Your task to perform on an android device: toggle notifications settings in the gmail app Image 0: 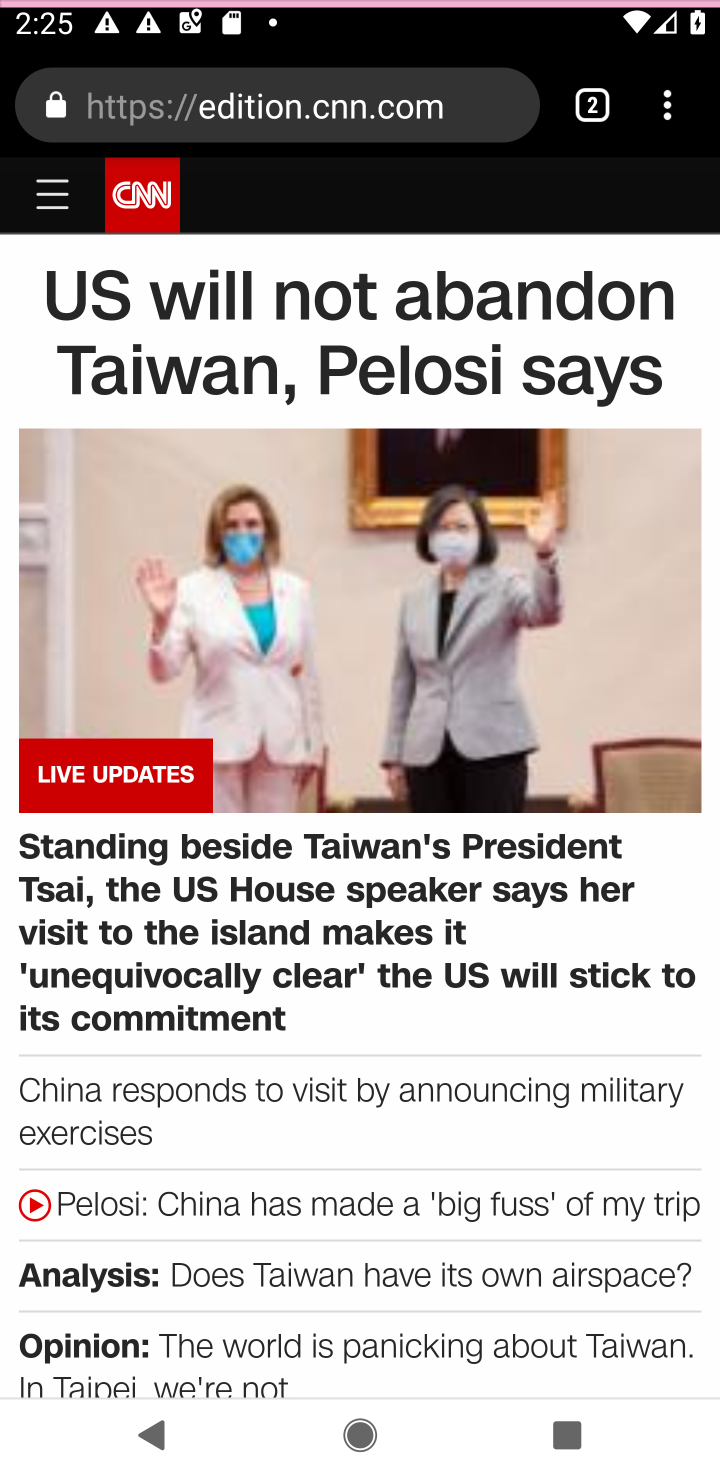
Step 0: press home button
Your task to perform on an android device: toggle notifications settings in the gmail app Image 1: 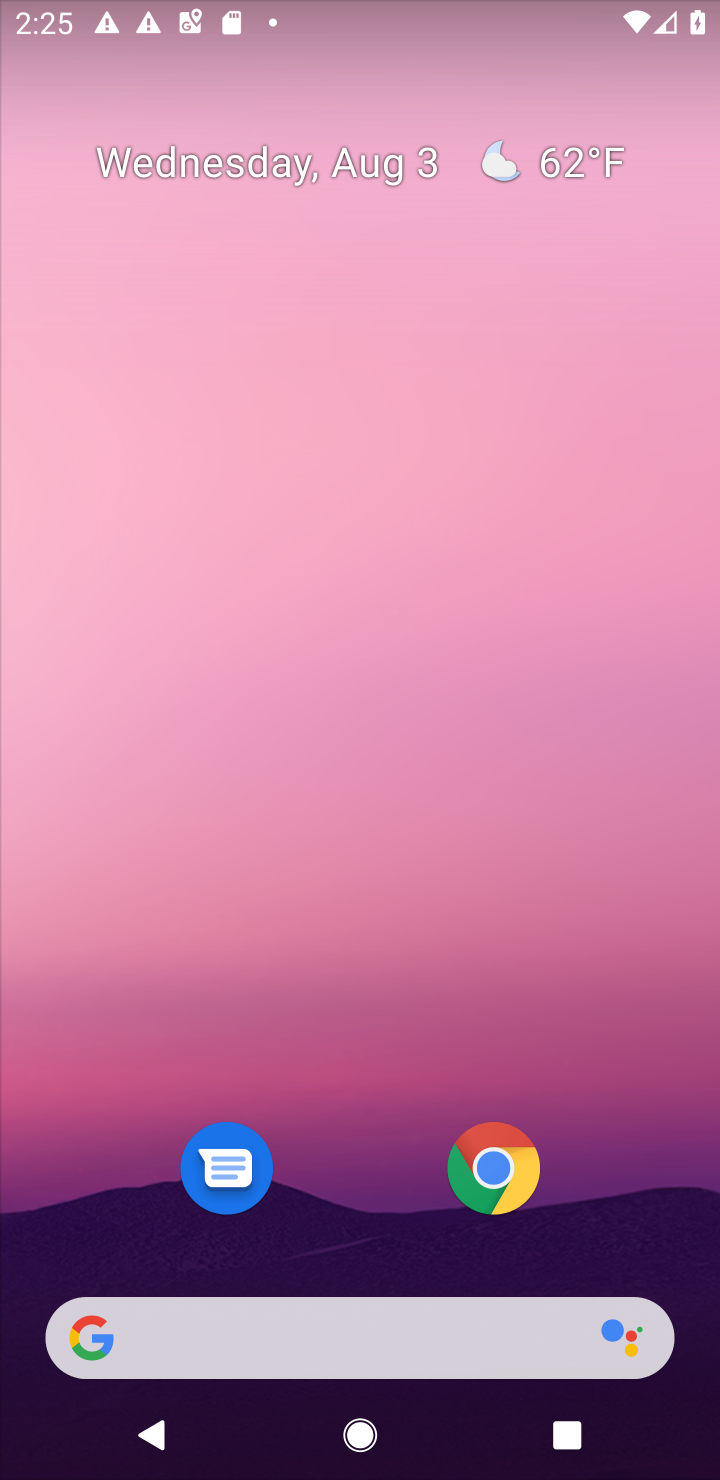
Step 1: drag from (653, 1249) to (582, 263)
Your task to perform on an android device: toggle notifications settings in the gmail app Image 2: 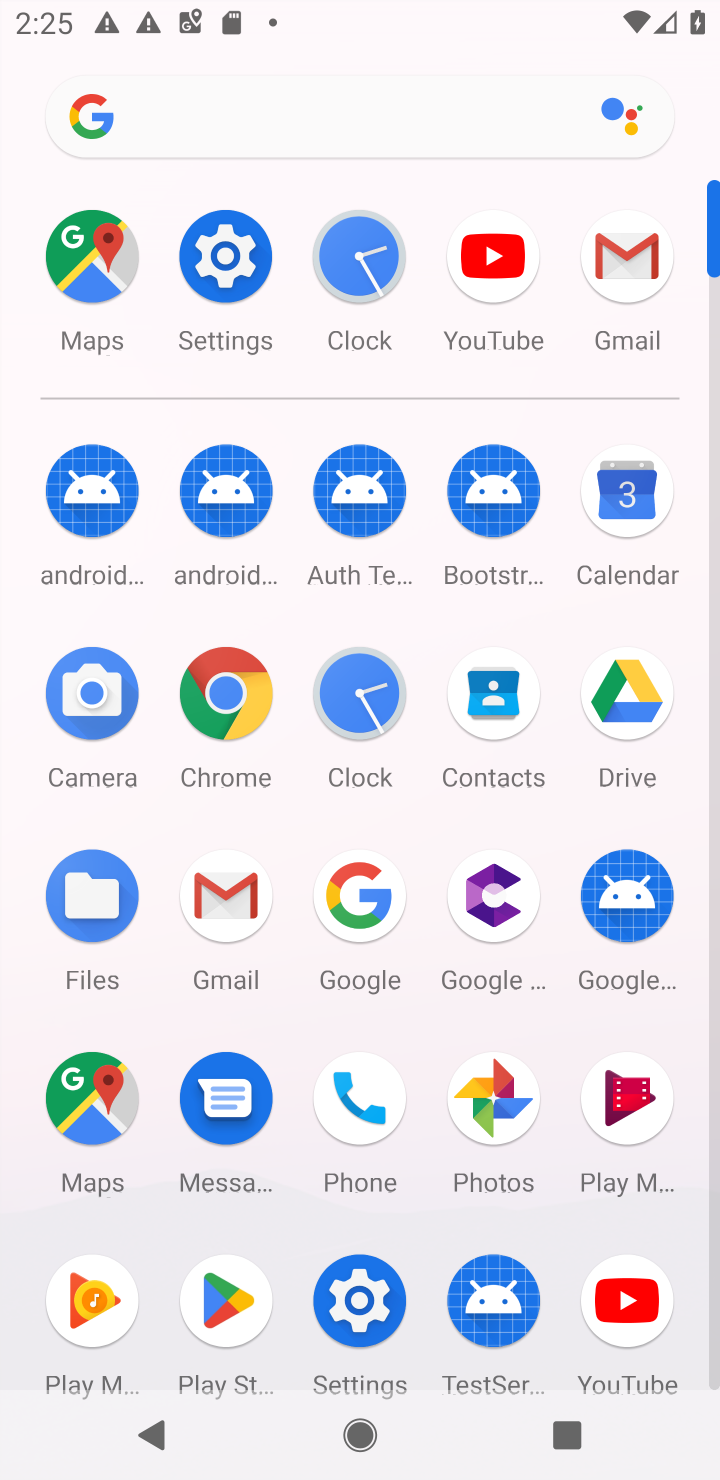
Step 2: click (227, 898)
Your task to perform on an android device: toggle notifications settings in the gmail app Image 3: 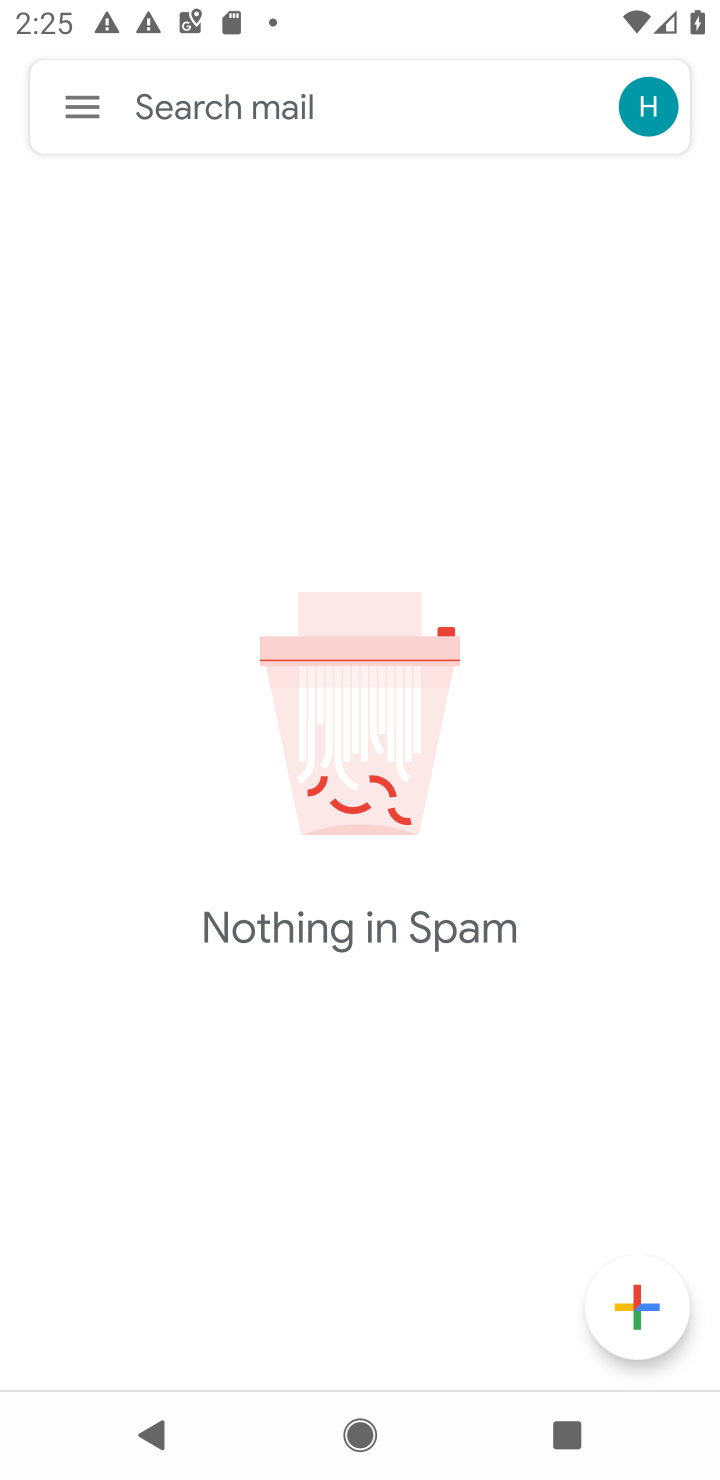
Step 3: click (77, 119)
Your task to perform on an android device: toggle notifications settings in the gmail app Image 4: 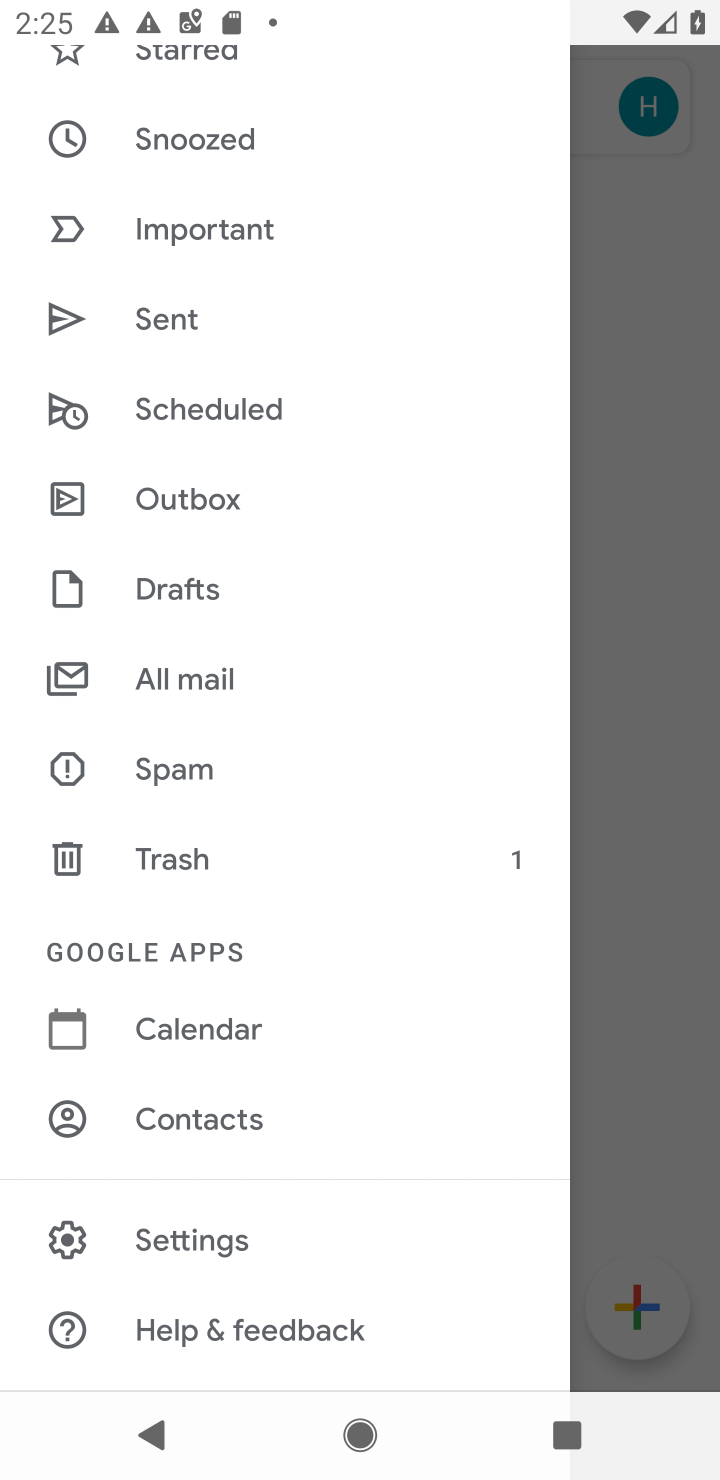
Step 4: click (172, 1237)
Your task to perform on an android device: toggle notifications settings in the gmail app Image 5: 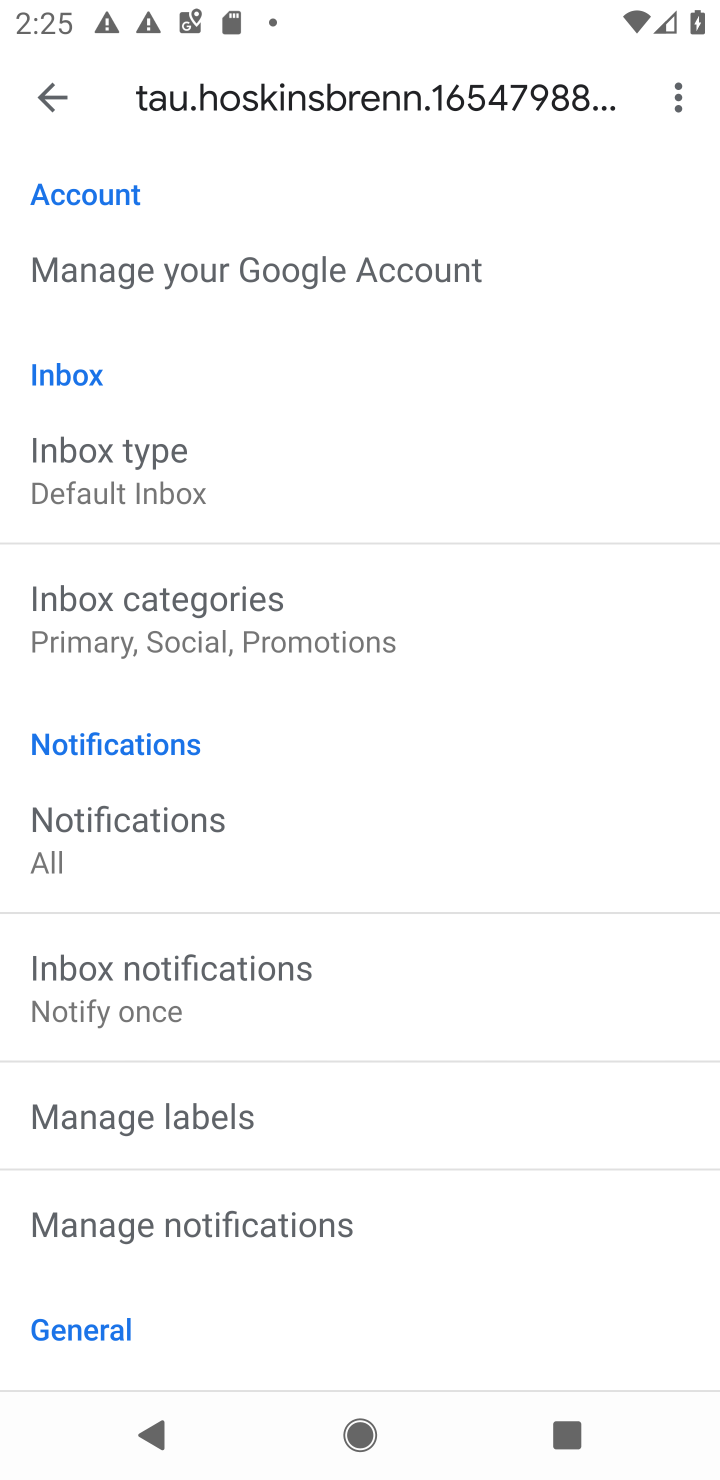
Step 5: click (178, 1234)
Your task to perform on an android device: toggle notifications settings in the gmail app Image 6: 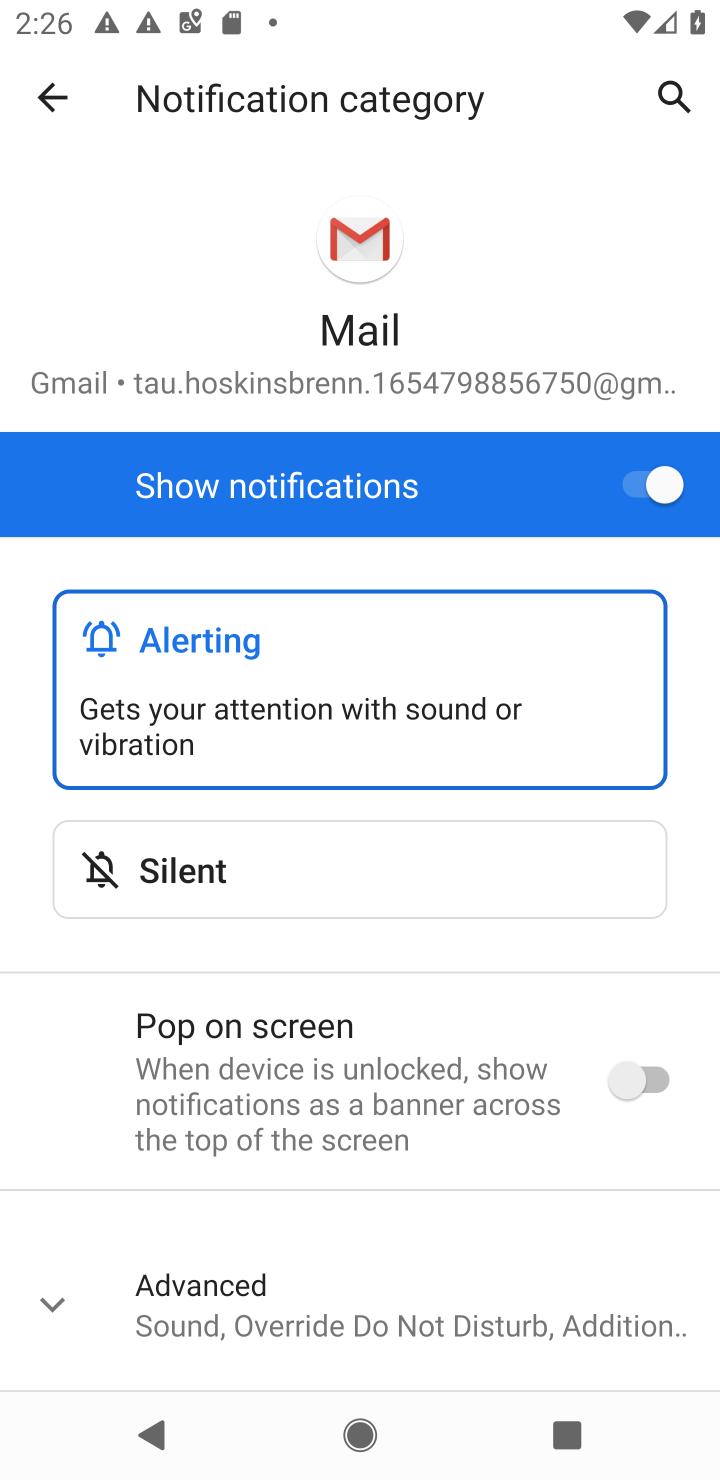
Step 6: click (624, 476)
Your task to perform on an android device: toggle notifications settings in the gmail app Image 7: 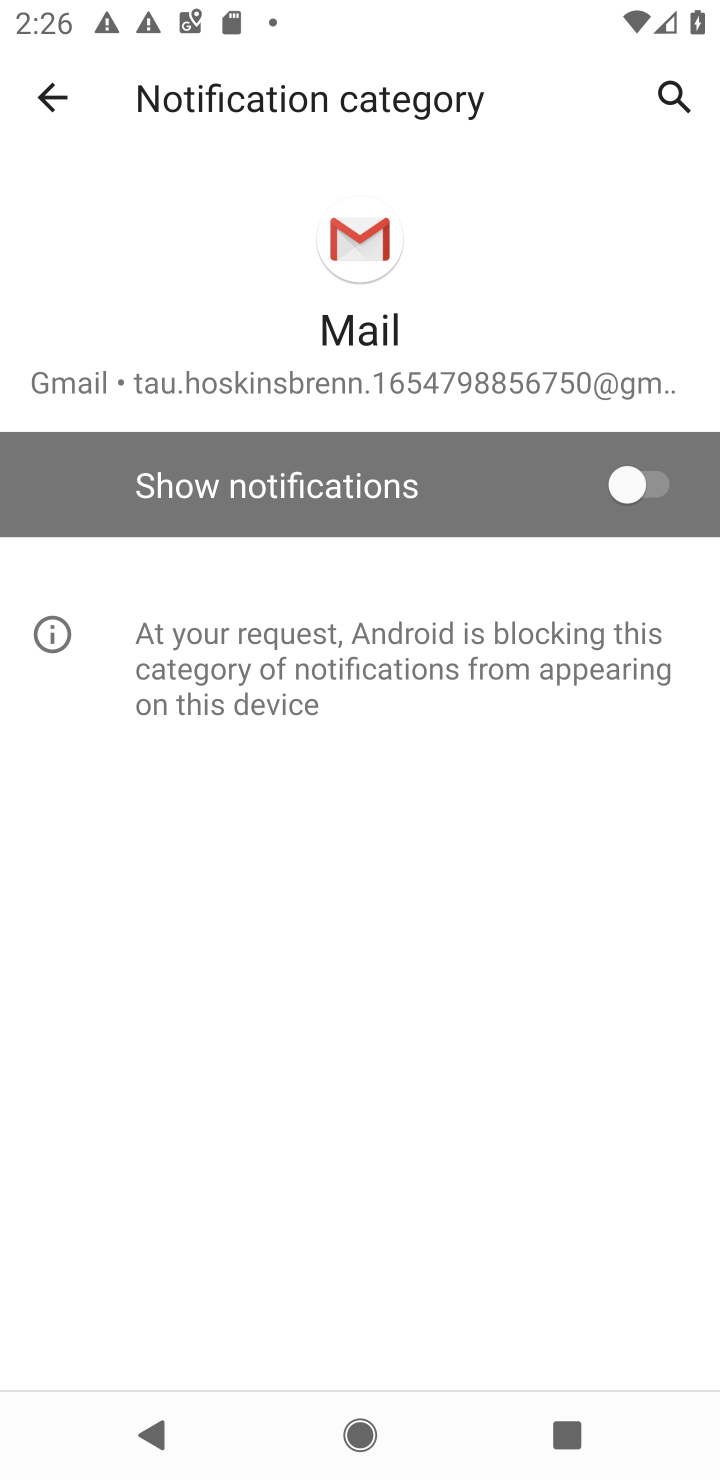
Step 7: task complete